Your task to perform on an android device: Go to notification settings Image 0: 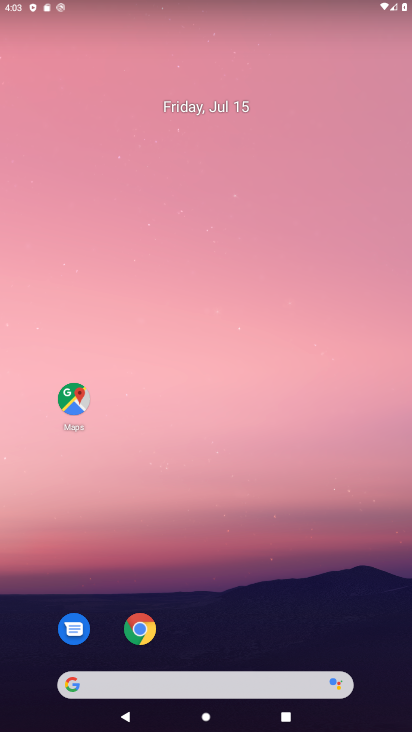
Step 0: drag from (214, 22) to (170, 54)
Your task to perform on an android device: Go to notification settings Image 1: 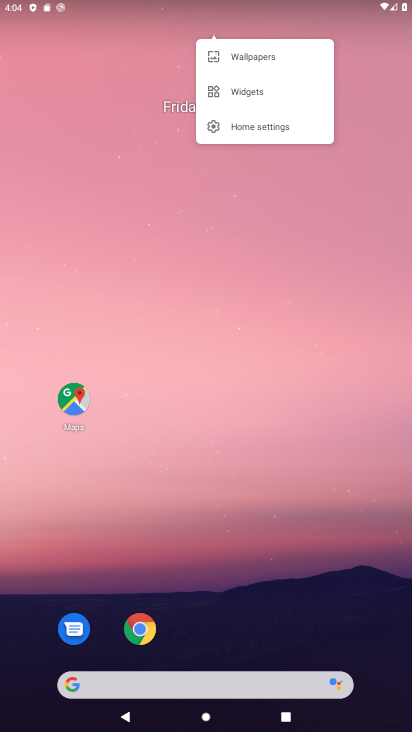
Step 1: click (223, 609)
Your task to perform on an android device: Go to notification settings Image 2: 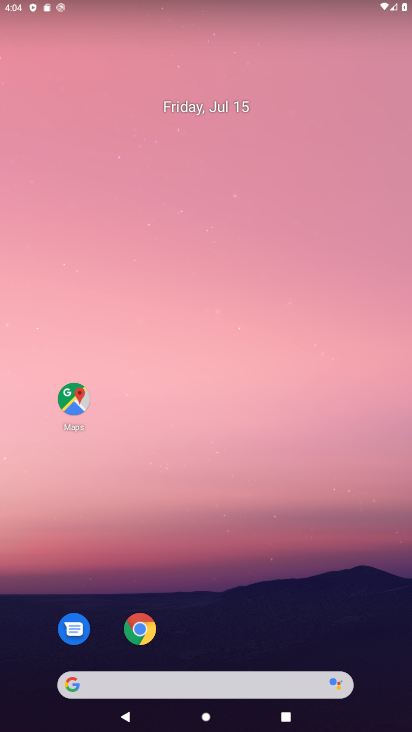
Step 2: drag from (223, 451) to (250, 79)
Your task to perform on an android device: Go to notification settings Image 3: 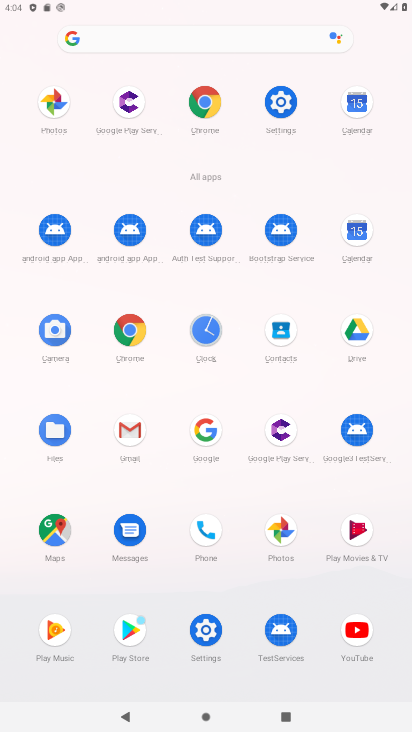
Step 3: click (280, 109)
Your task to perform on an android device: Go to notification settings Image 4: 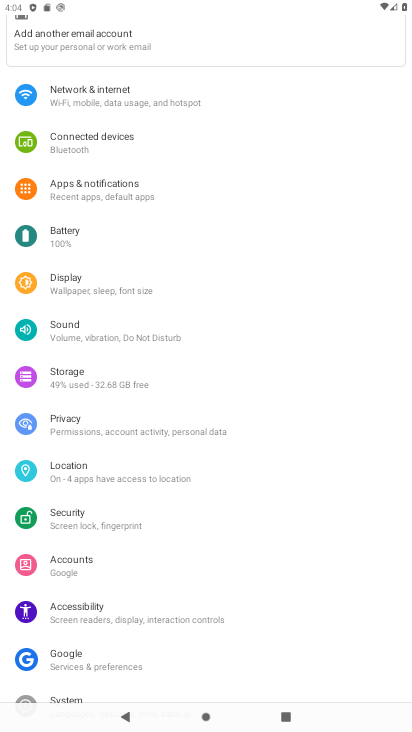
Step 4: click (96, 189)
Your task to perform on an android device: Go to notification settings Image 5: 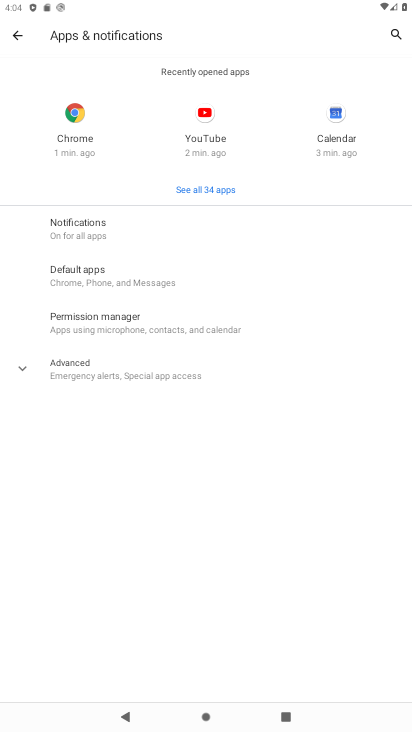
Step 5: task complete